Your task to perform on an android device: Go to internet settings Image 0: 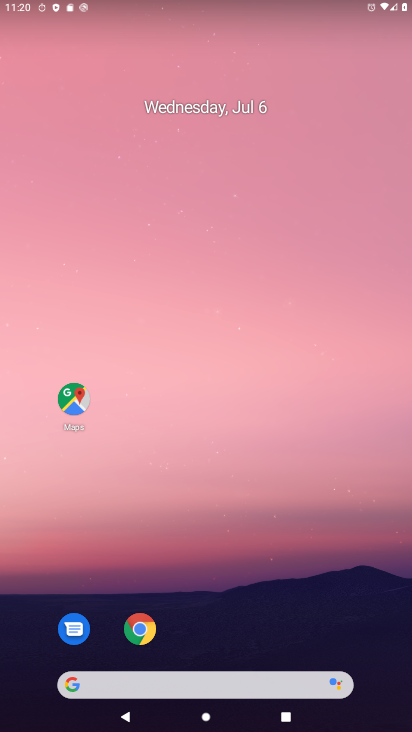
Step 0: drag from (208, 643) to (226, 35)
Your task to perform on an android device: Go to internet settings Image 1: 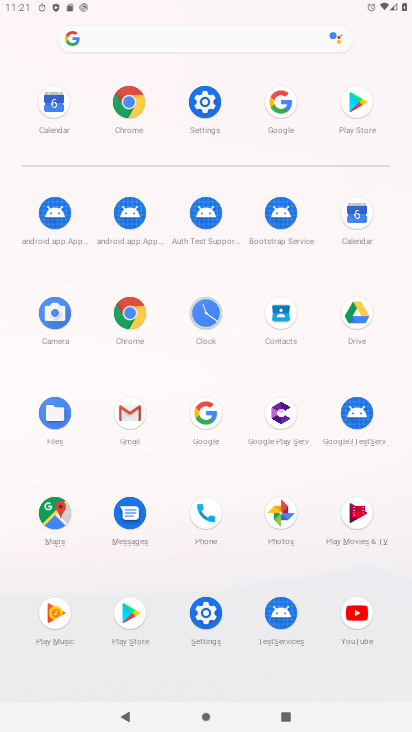
Step 1: click (195, 94)
Your task to perform on an android device: Go to internet settings Image 2: 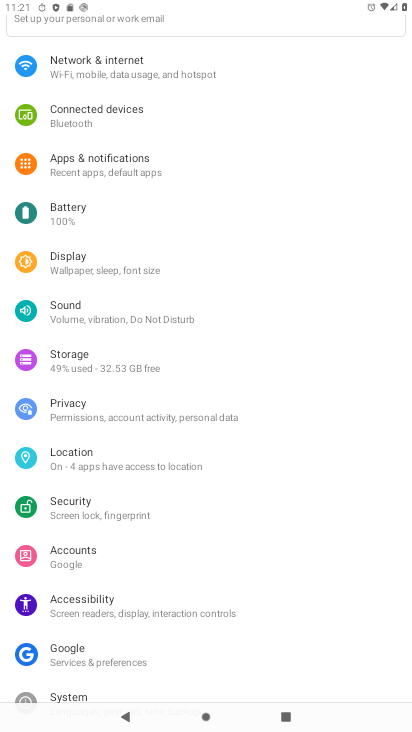
Step 2: click (135, 69)
Your task to perform on an android device: Go to internet settings Image 3: 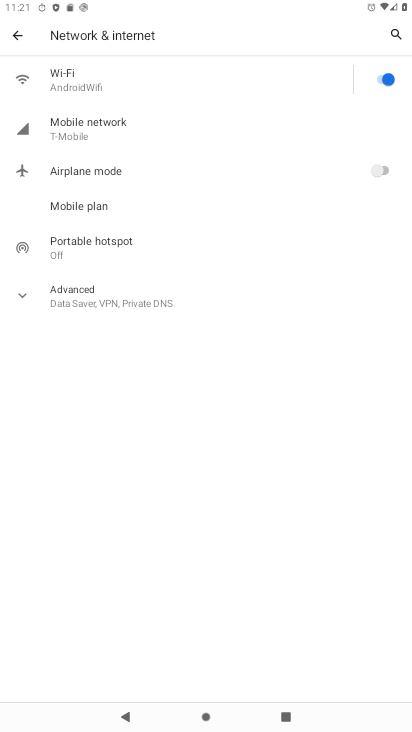
Step 3: click (121, 76)
Your task to perform on an android device: Go to internet settings Image 4: 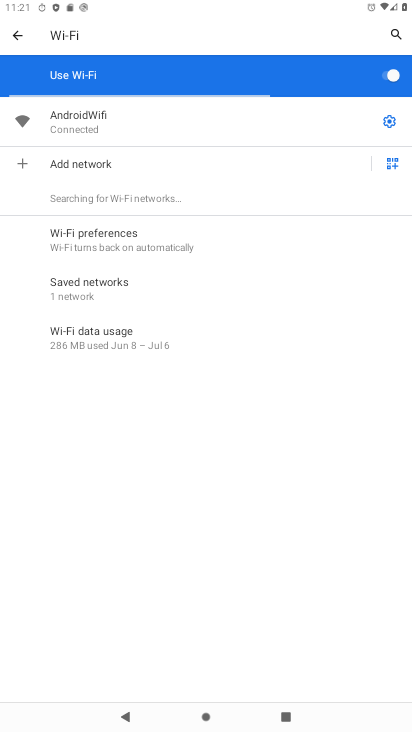
Step 4: click (392, 124)
Your task to perform on an android device: Go to internet settings Image 5: 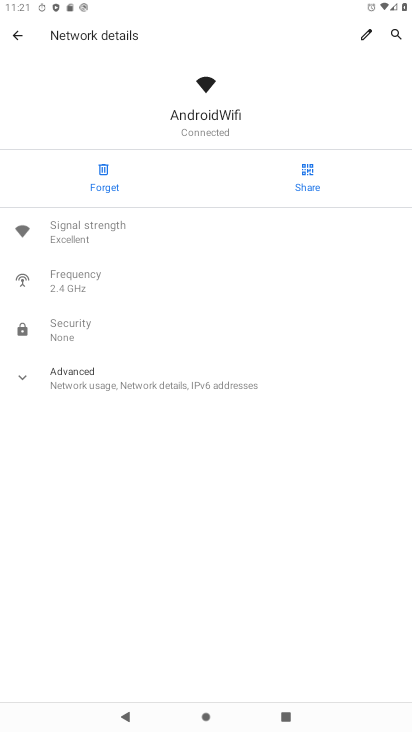
Step 5: task complete